Your task to perform on an android device: Search for "logitech g910" on ebay, select the first entry, and add it to the cart. Image 0: 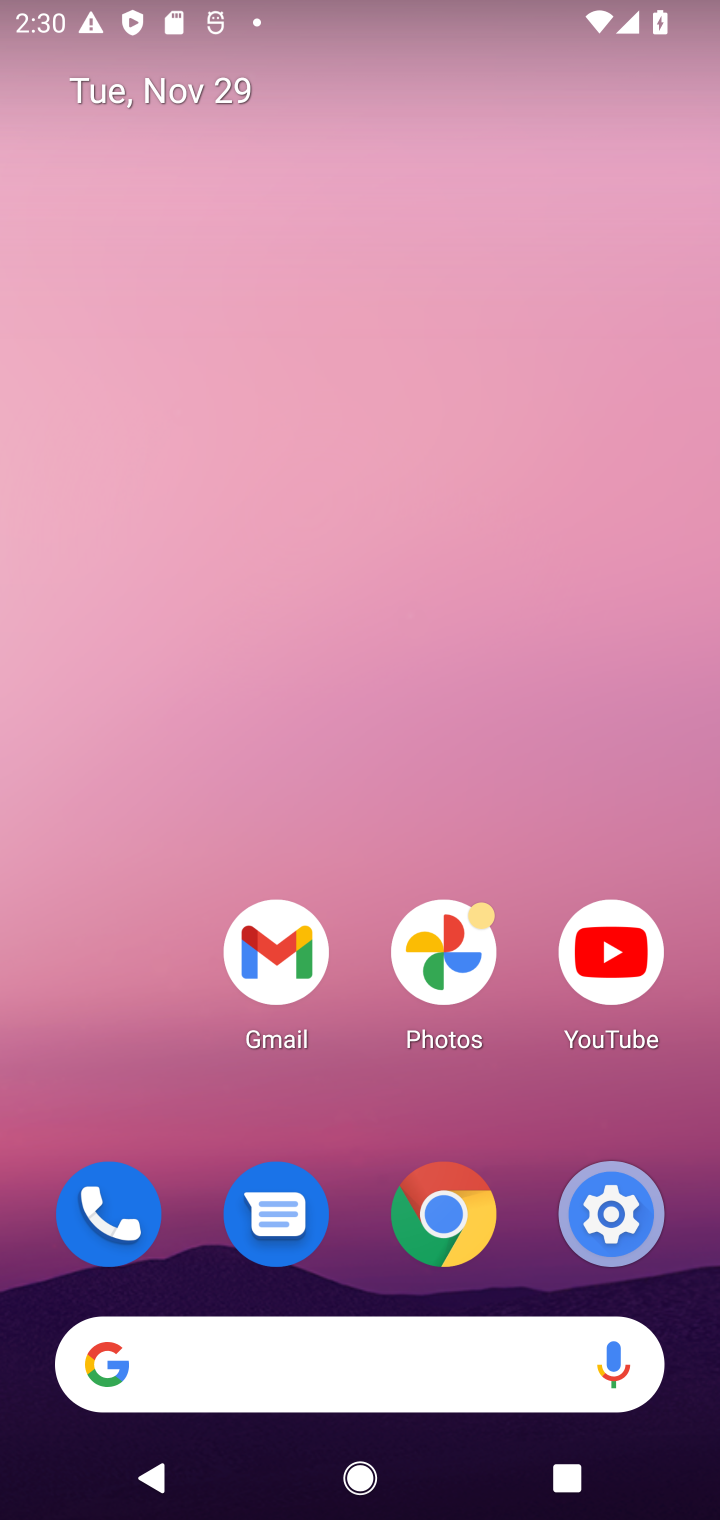
Step 0: click (464, 1375)
Your task to perform on an android device: Search for "logitech g910" on ebay, select the first entry, and add it to the cart. Image 1: 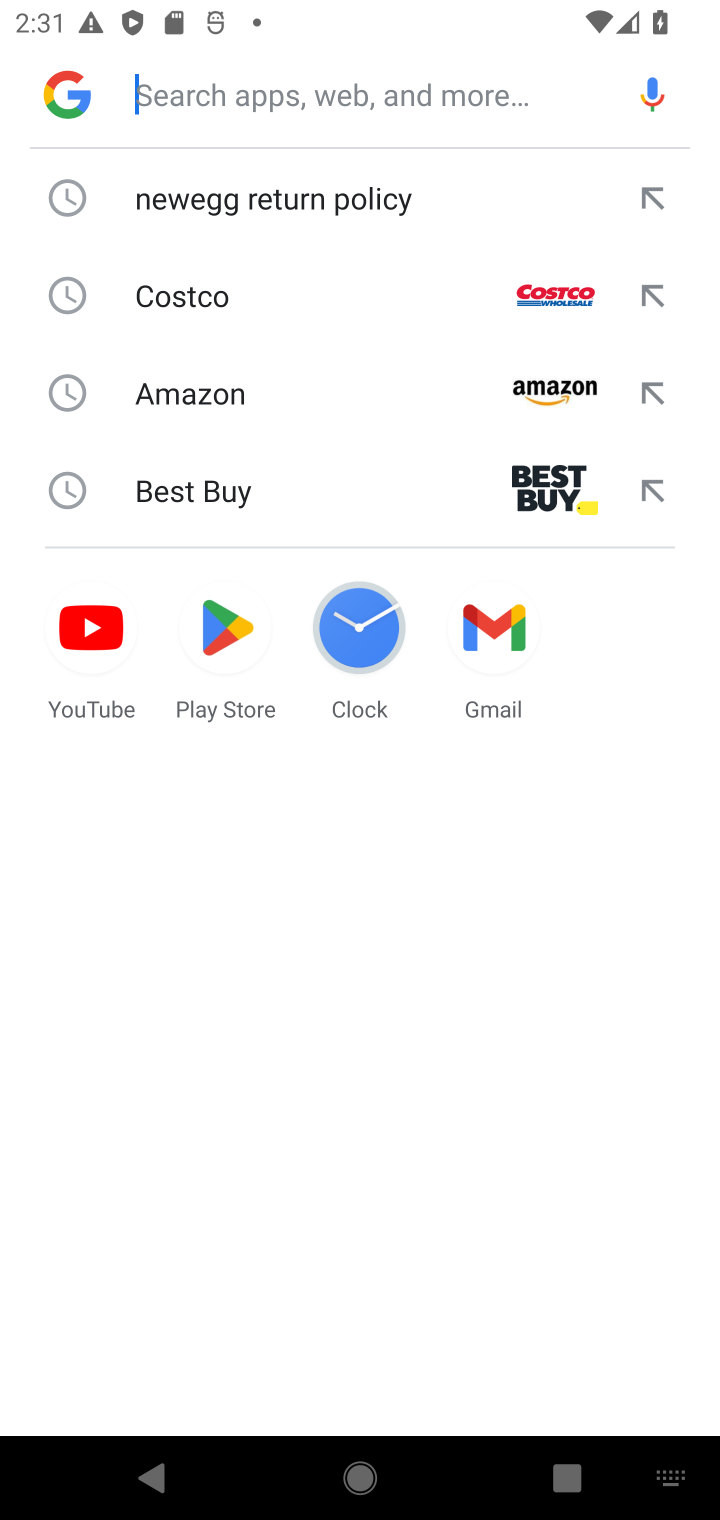
Step 1: click (290, 203)
Your task to perform on an android device: Search for "logitech g910" on ebay, select the first entry, and add it to the cart. Image 2: 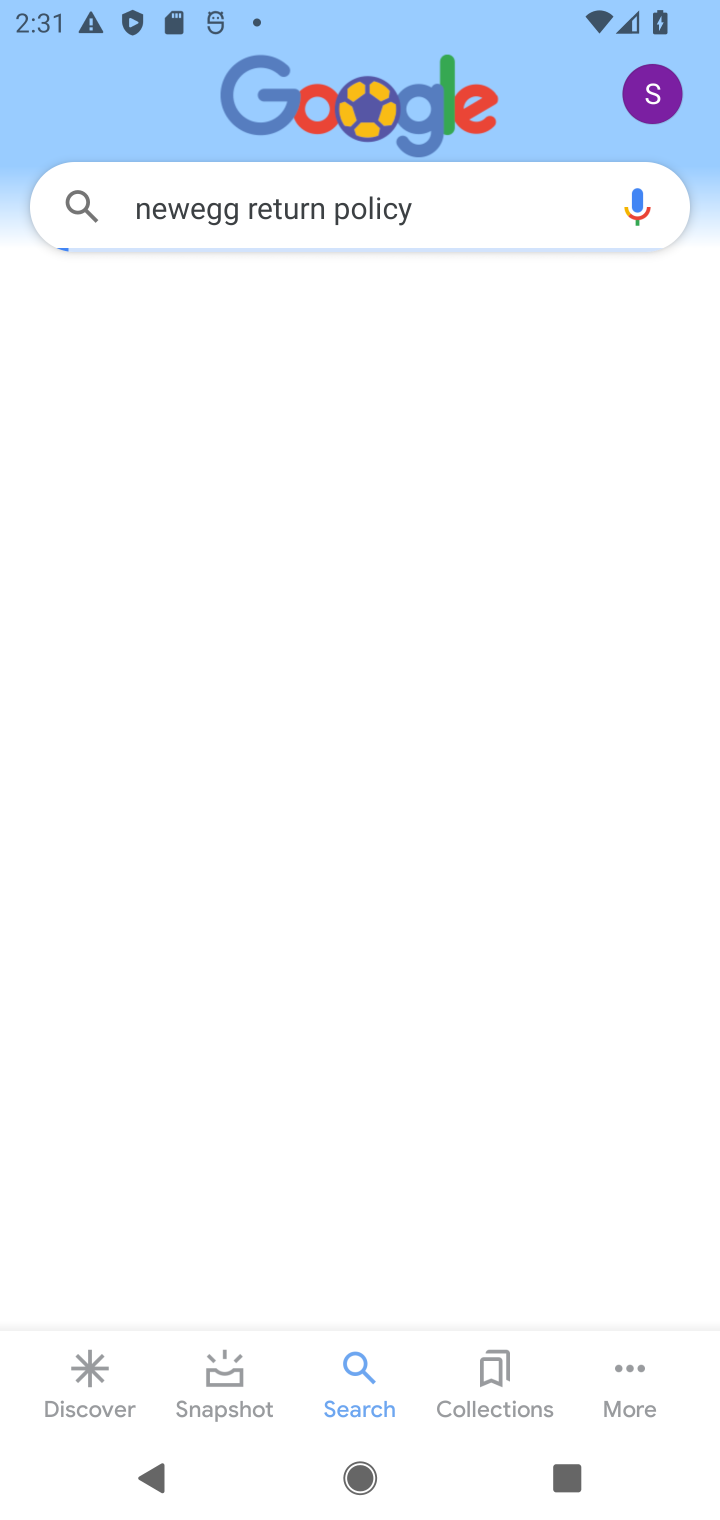
Step 2: task complete